Your task to perform on an android device: Open the calendar and show me this week's events Image 0: 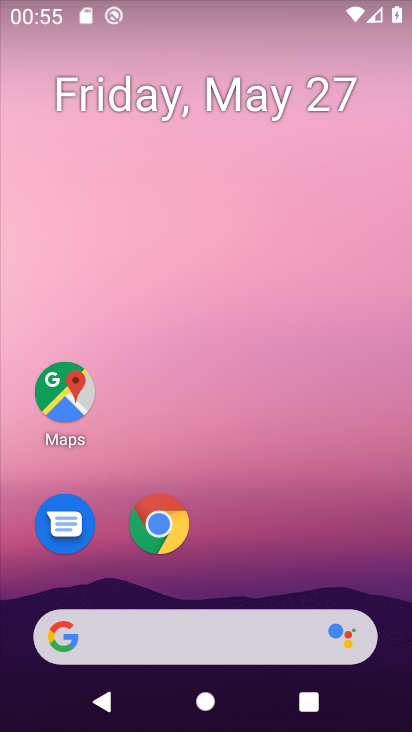
Step 0: drag from (258, 541) to (286, 16)
Your task to perform on an android device: Open the calendar and show me this week's events Image 1: 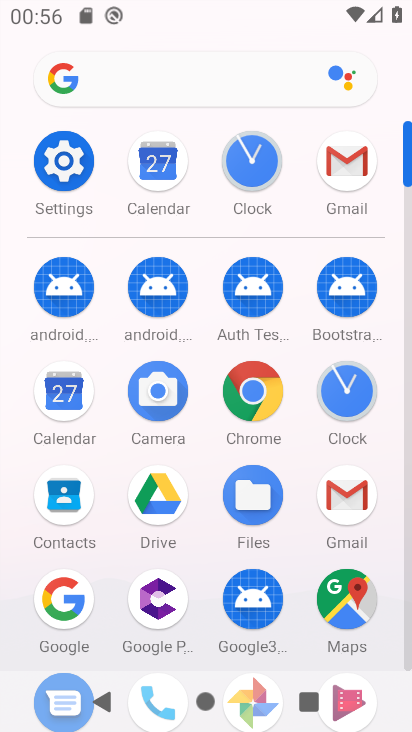
Step 1: click (162, 170)
Your task to perform on an android device: Open the calendar and show me this week's events Image 2: 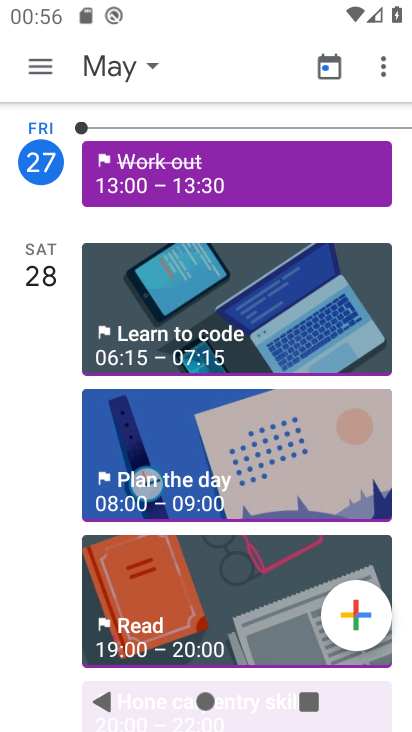
Step 2: click (49, 61)
Your task to perform on an android device: Open the calendar and show me this week's events Image 3: 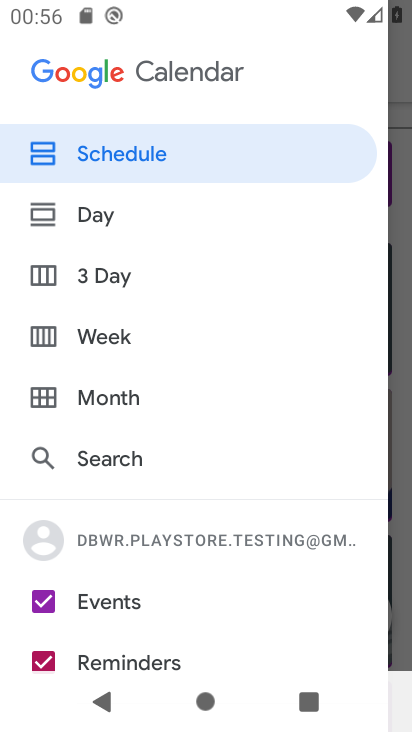
Step 3: click (50, 334)
Your task to perform on an android device: Open the calendar and show me this week's events Image 4: 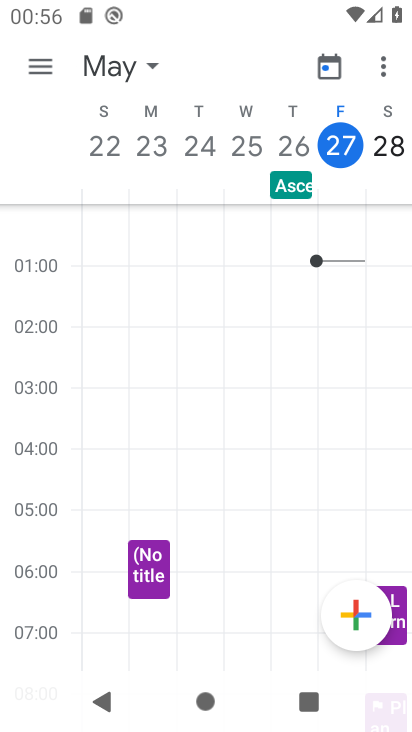
Step 4: task complete